Your task to perform on an android device: allow cookies in the chrome app Image 0: 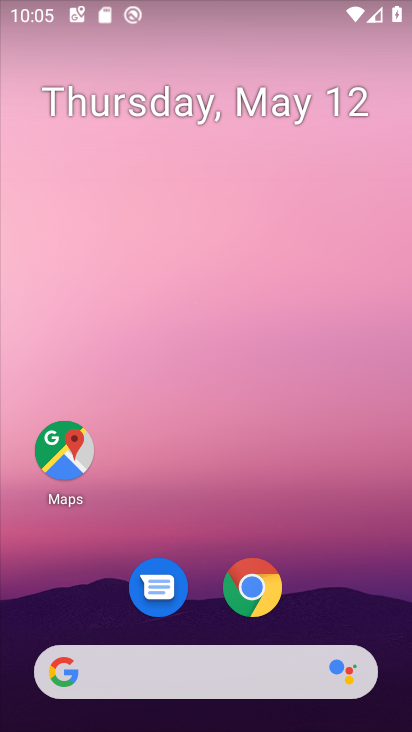
Step 0: drag from (366, 636) to (328, 71)
Your task to perform on an android device: allow cookies in the chrome app Image 1: 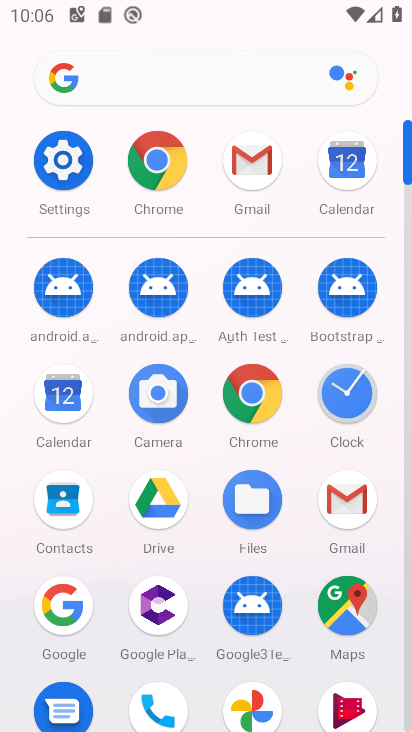
Step 1: click (168, 180)
Your task to perform on an android device: allow cookies in the chrome app Image 2: 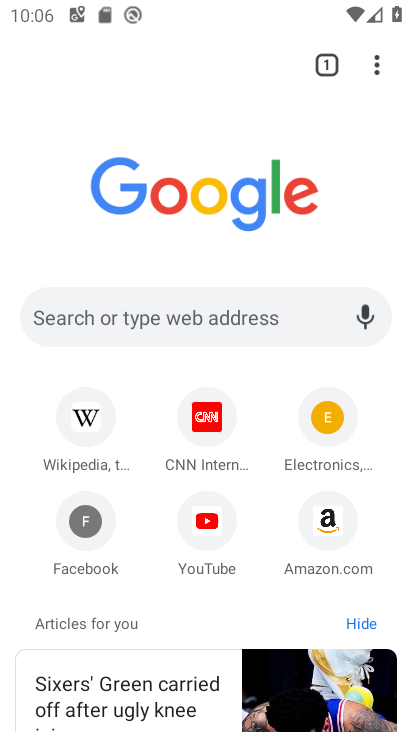
Step 2: click (380, 70)
Your task to perform on an android device: allow cookies in the chrome app Image 3: 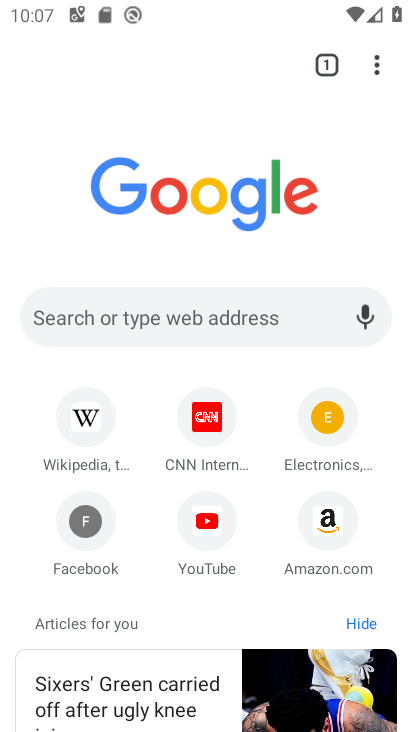
Step 3: click (380, 70)
Your task to perform on an android device: allow cookies in the chrome app Image 4: 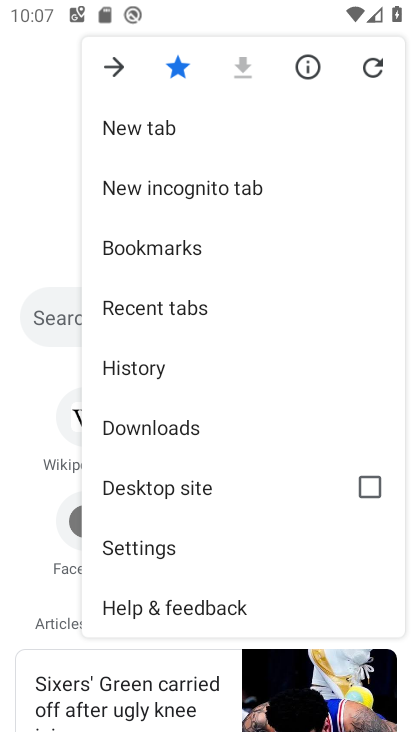
Step 4: click (165, 374)
Your task to perform on an android device: allow cookies in the chrome app Image 5: 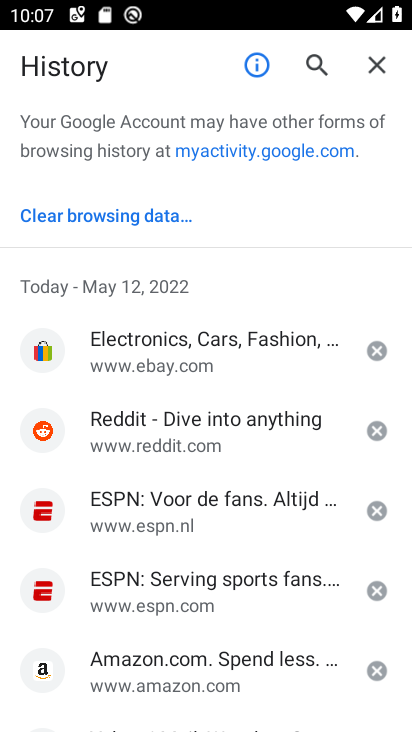
Step 5: click (130, 220)
Your task to perform on an android device: allow cookies in the chrome app Image 6: 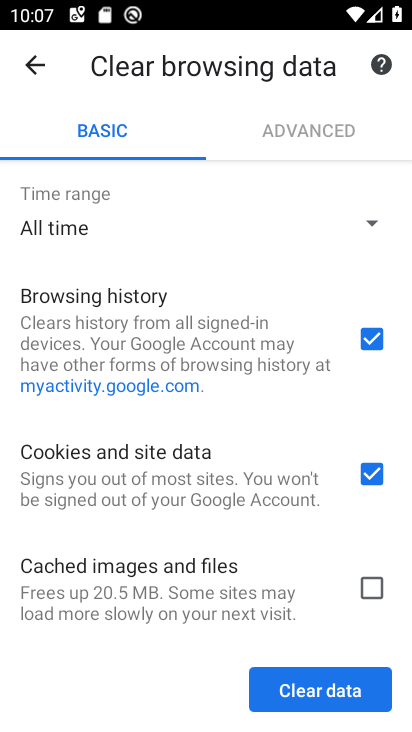
Step 6: task complete